Your task to perform on an android device: Open network settings Image 0: 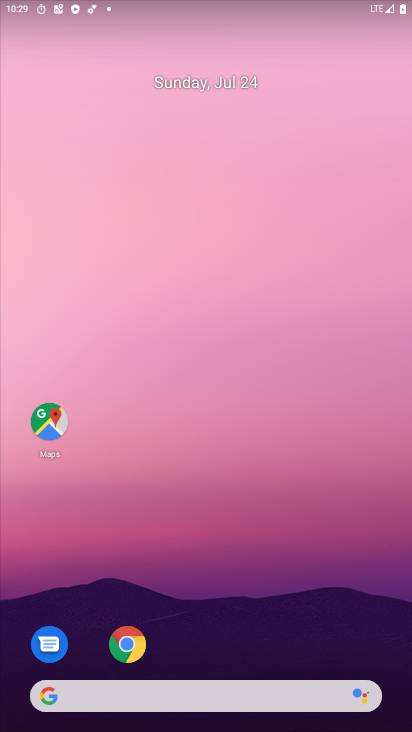
Step 0: drag from (224, 567) to (227, 172)
Your task to perform on an android device: Open network settings Image 1: 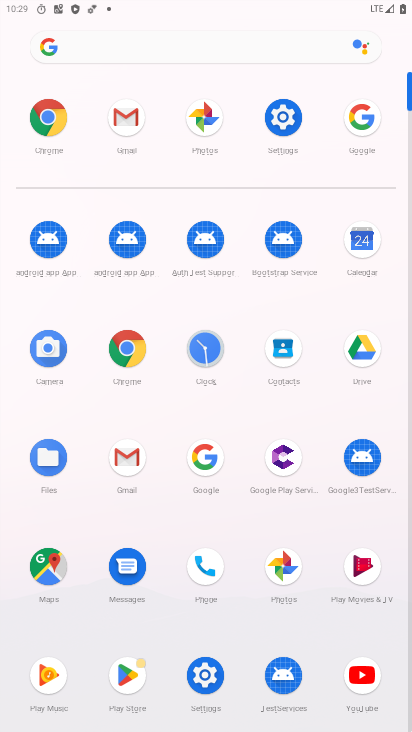
Step 1: click (274, 121)
Your task to perform on an android device: Open network settings Image 2: 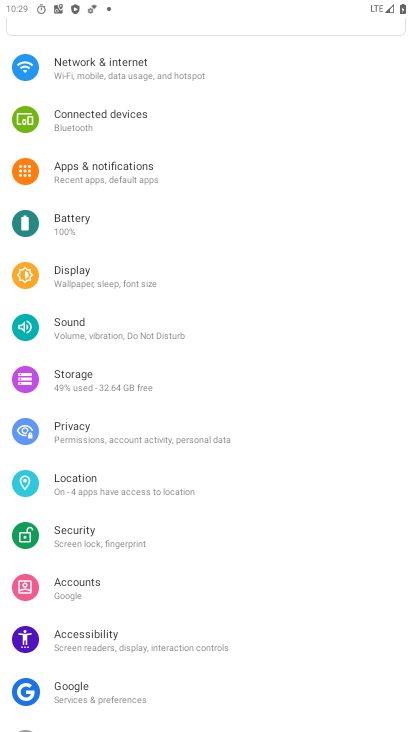
Step 2: click (96, 69)
Your task to perform on an android device: Open network settings Image 3: 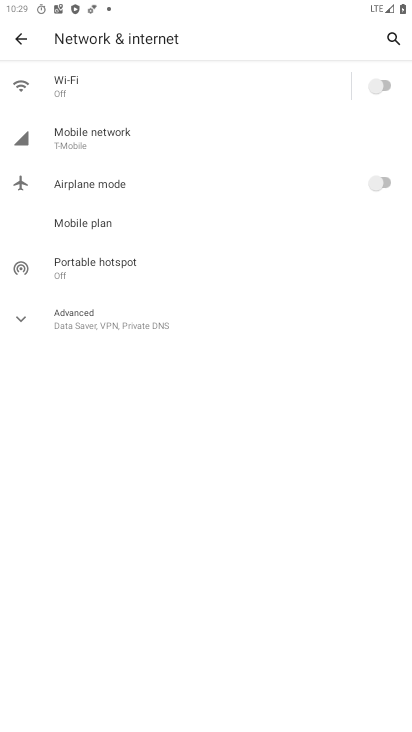
Step 3: click (97, 134)
Your task to perform on an android device: Open network settings Image 4: 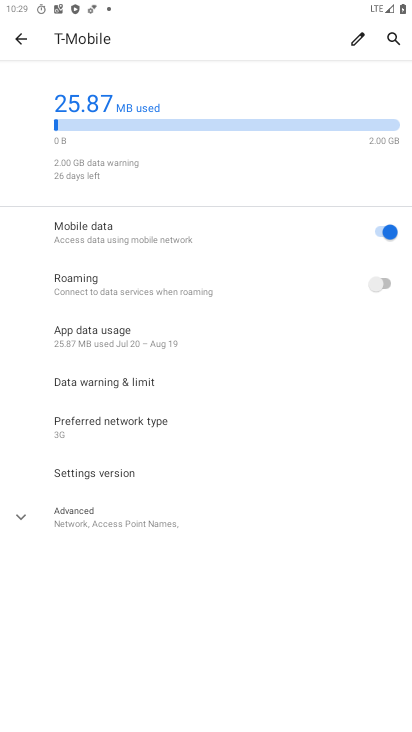
Step 4: click (80, 521)
Your task to perform on an android device: Open network settings Image 5: 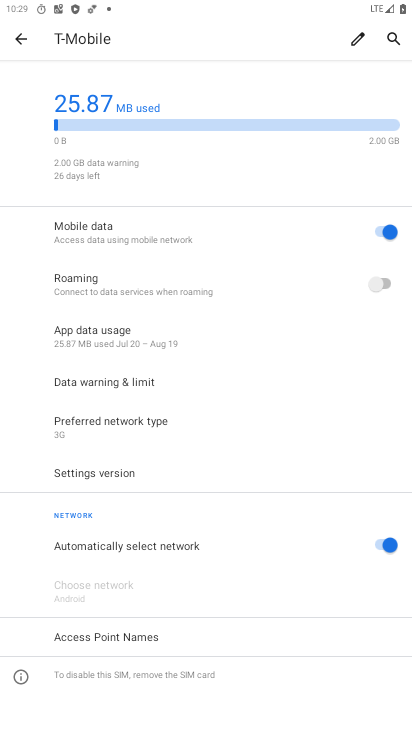
Step 5: task complete